Your task to perform on an android device: Show me the alarms in the clock app Image 0: 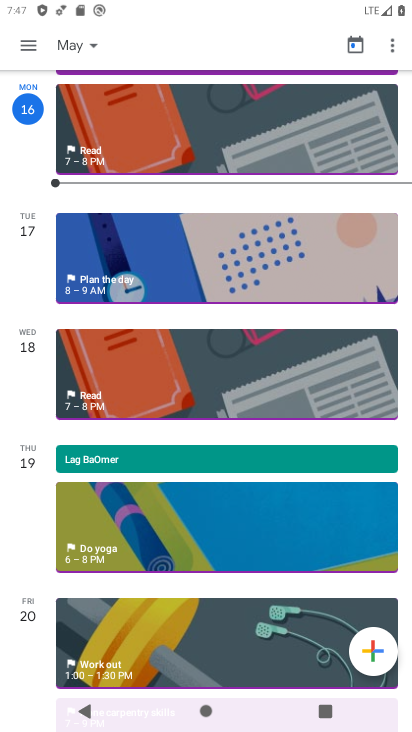
Step 0: press home button
Your task to perform on an android device: Show me the alarms in the clock app Image 1: 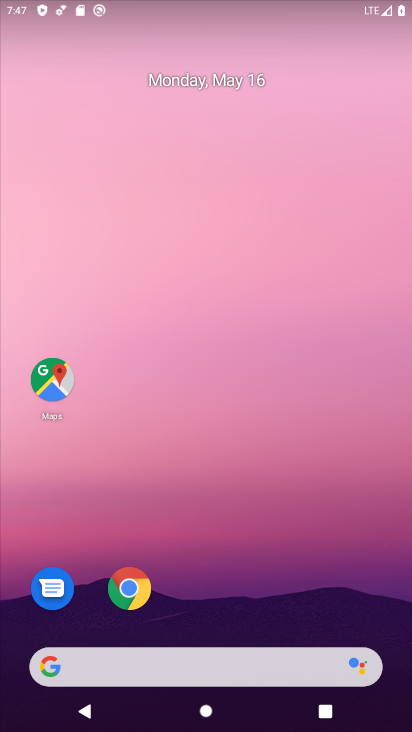
Step 1: drag from (244, 577) to (209, 72)
Your task to perform on an android device: Show me the alarms in the clock app Image 2: 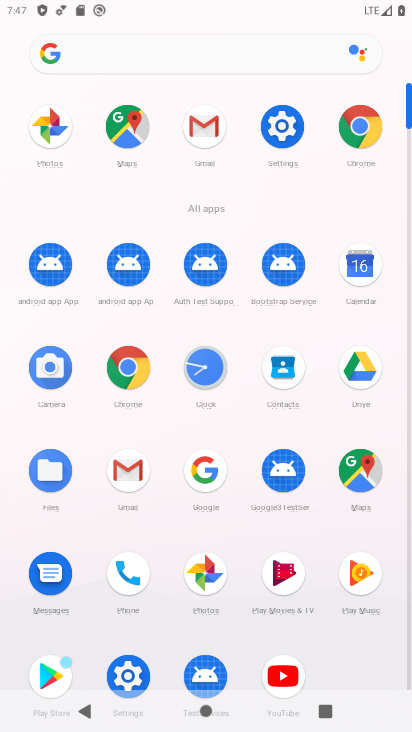
Step 2: click (207, 364)
Your task to perform on an android device: Show me the alarms in the clock app Image 3: 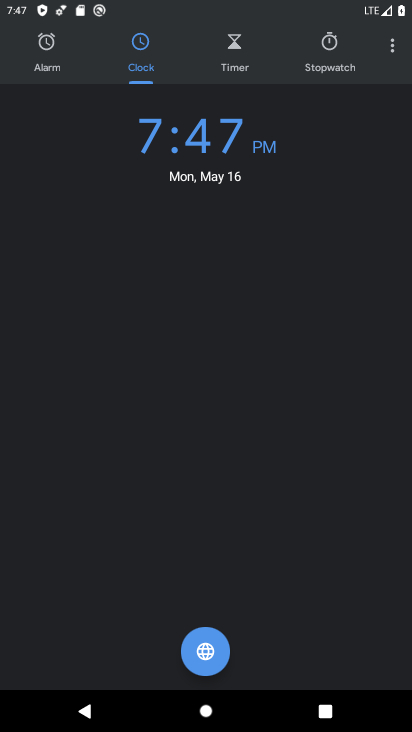
Step 3: click (49, 40)
Your task to perform on an android device: Show me the alarms in the clock app Image 4: 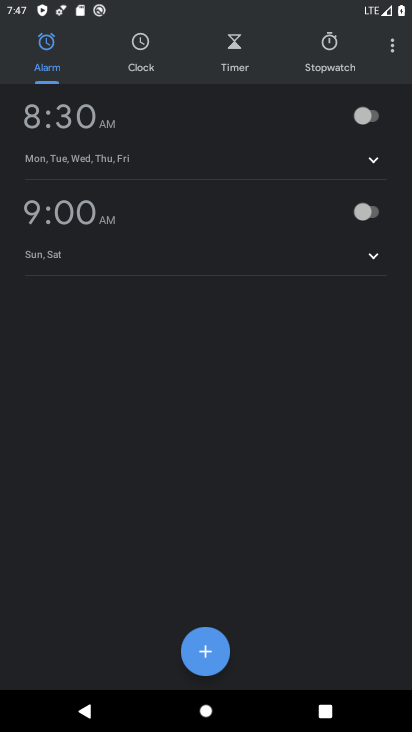
Step 4: task complete